Your task to perform on an android device: find which apps use the phone's location Image 0: 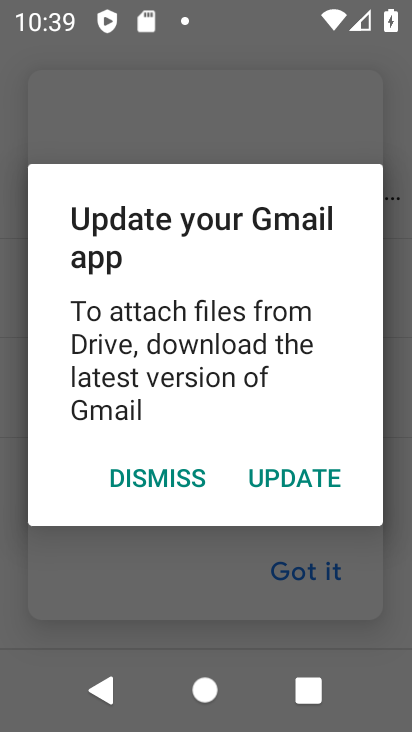
Step 0: press home button
Your task to perform on an android device: find which apps use the phone's location Image 1: 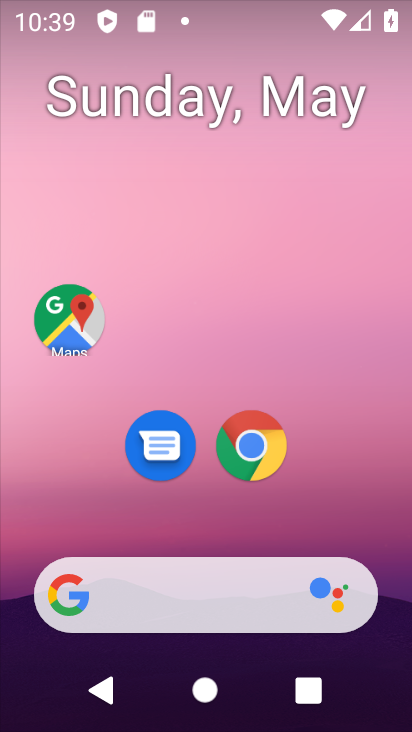
Step 1: drag from (160, 518) to (188, 216)
Your task to perform on an android device: find which apps use the phone's location Image 2: 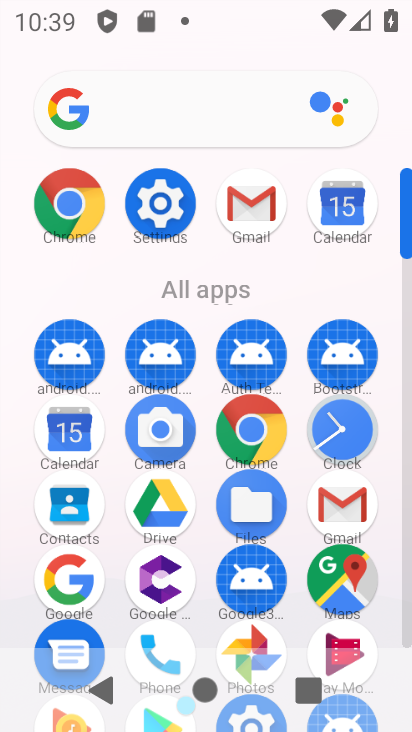
Step 2: drag from (311, 546) to (335, 305)
Your task to perform on an android device: find which apps use the phone's location Image 3: 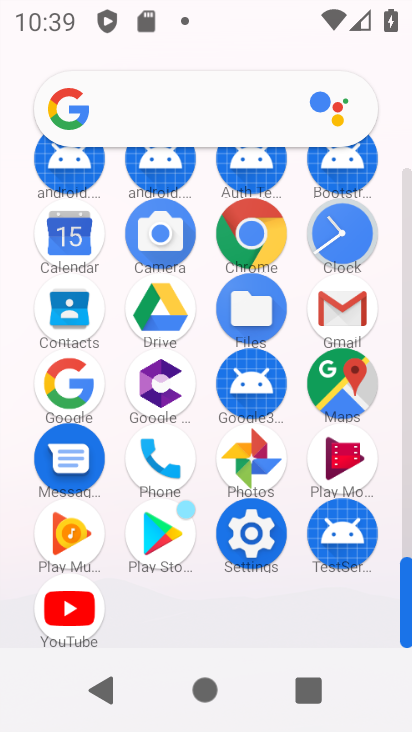
Step 3: click (246, 537)
Your task to perform on an android device: find which apps use the phone's location Image 4: 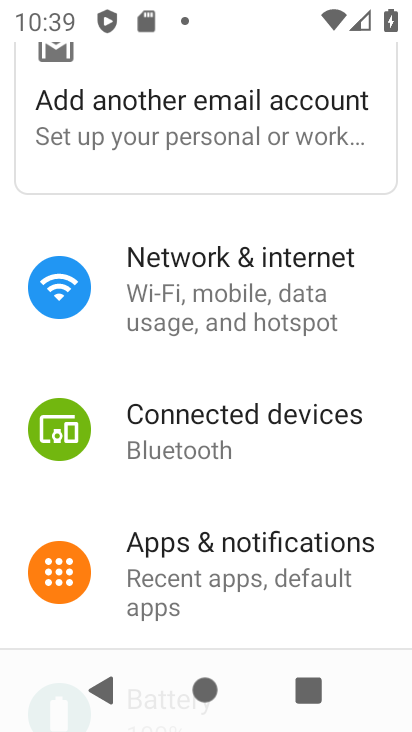
Step 4: drag from (198, 605) to (255, 309)
Your task to perform on an android device: find which apps use the phone's location Image 5: 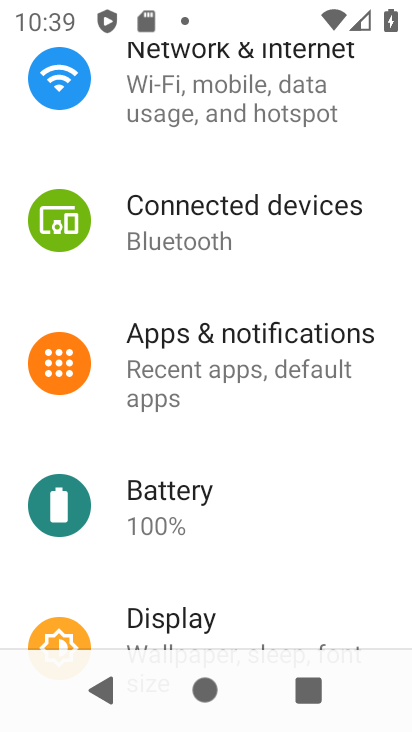
Step 5: drag from (271, 562) to (294, 362)
Your task to perform on an android device: find which apps use the phone's location Image 6: 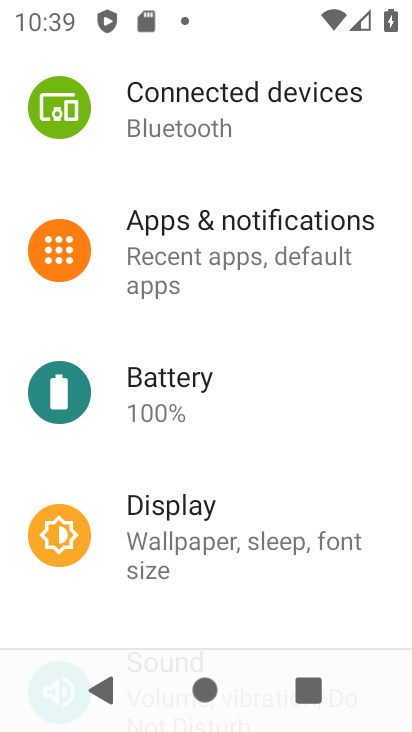
Step 6: drag from (249, 586) to (288, 302)
Your task to perform on an android device: find which apps use the phone's location Image 7: 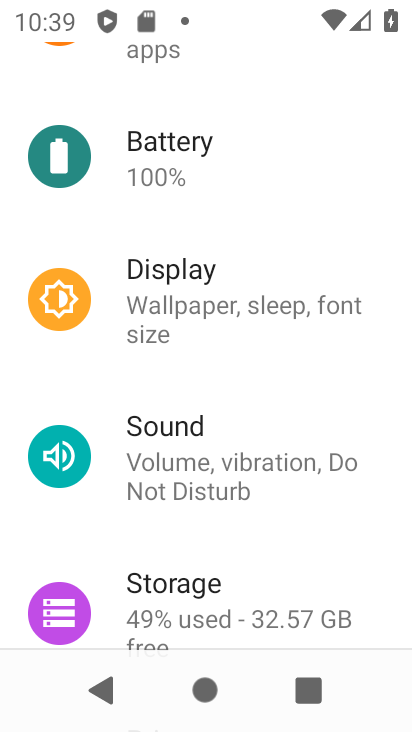
Step 7: drag from (245, 576) to (288, 318)
Your task to perform on an android device: find which apps use the phone's location Image 8: 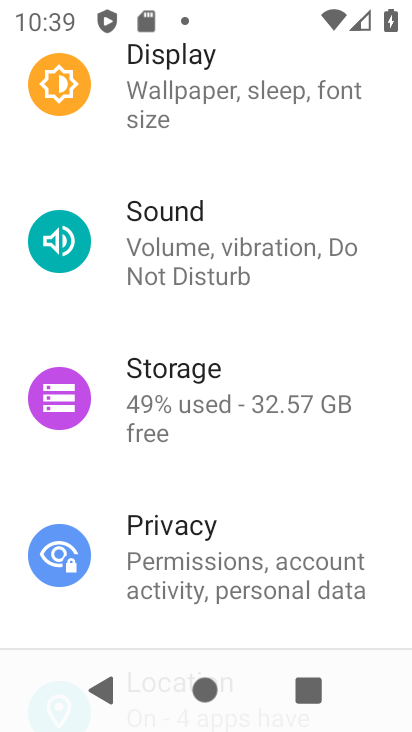
Step 8: drag from (262, 545) to (315, 272)
Your task to perform on an android device: find which apps use the phone's location Image 9: 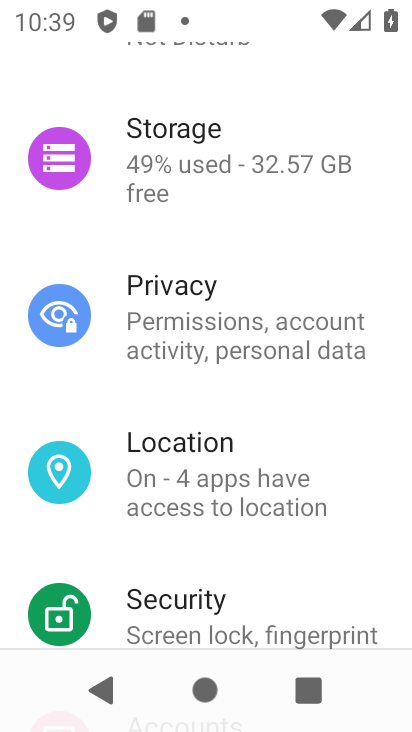
Step 9: click (222, 486)
Your task to perform on an android device: find which apps use the phone's location Image 10: 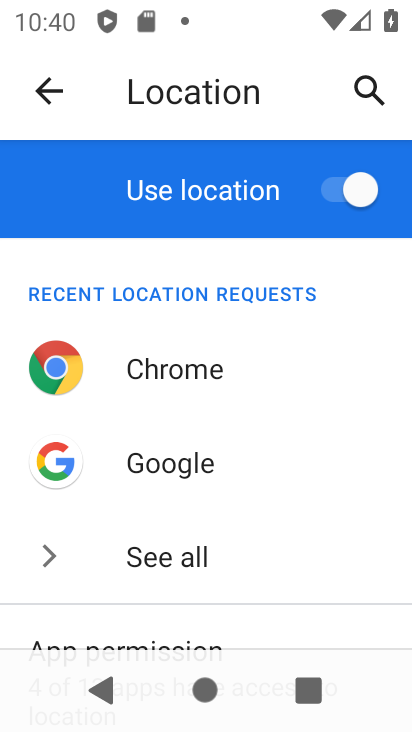
Step 10: drag from (254, 593) to (294, 225)
Your task to perform on an android device: find which apps use the phone's location Image 11: 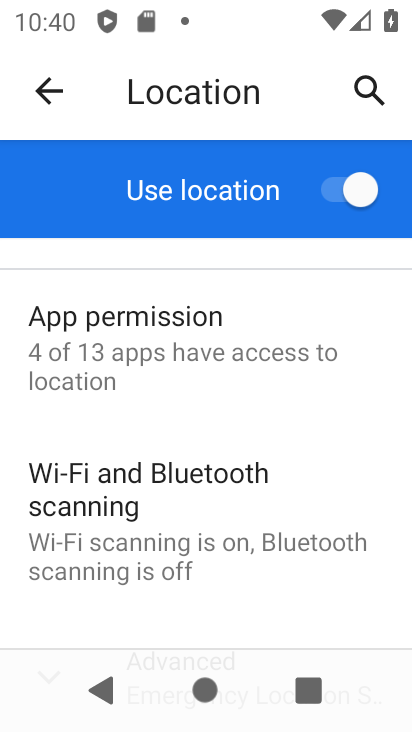
Step 11: drag from (227, 597) to (272, 225)
Your task to perform on an android device: find which apps use the phone's location Image 12: 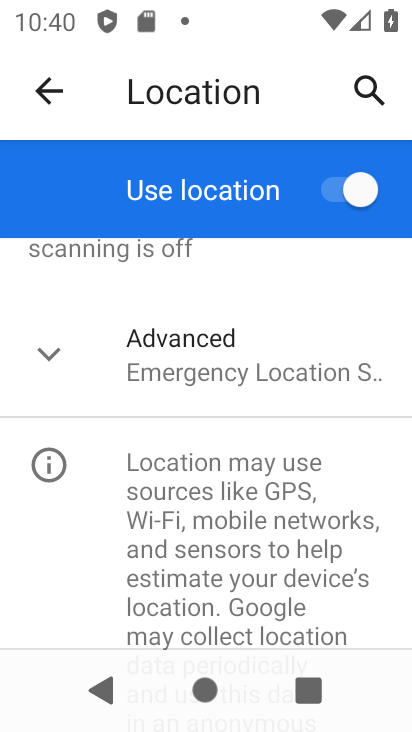
Step 12: drag from (134, 285) to (121, 583)
Your task to perform on an android device: find which apps use the phone's location Image 13: 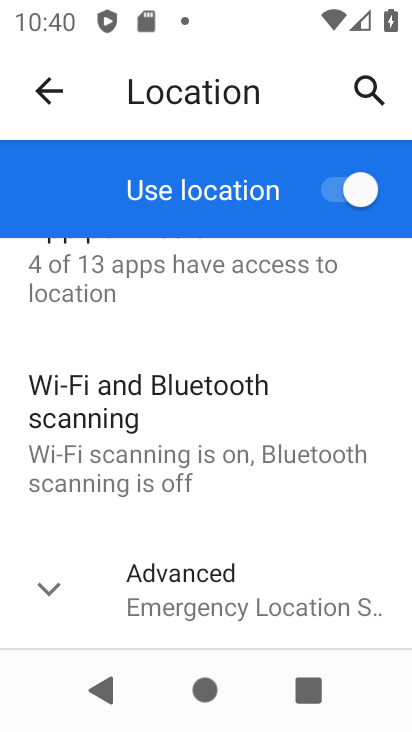
Step 13: drag from (182, 286) to (170, 603)
Your task to perform on an android device: find which apps use the phone's location Image 14: 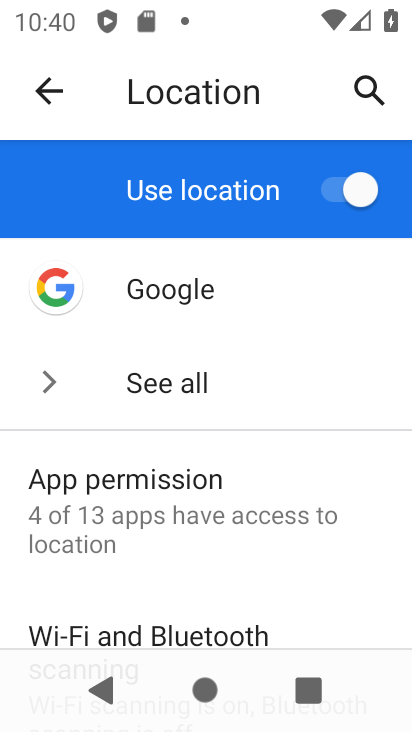
Step 14: drag from (244, 272) to (208, 530)
Your task to perform on an android device: find which apps use the phone's location Image 15: 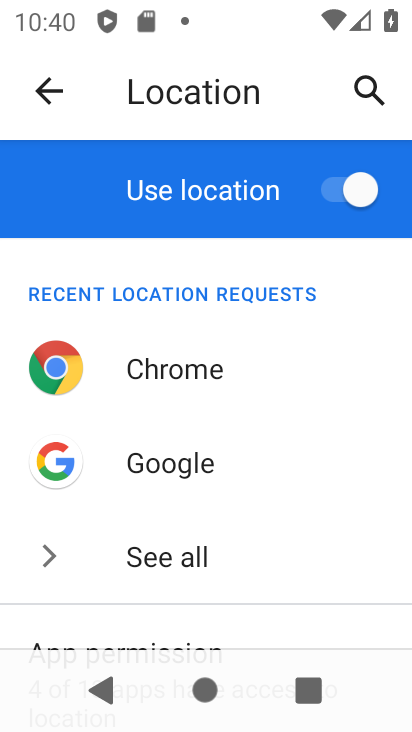
Step 15: drag from (203, 283) to (187, 421)
Your task to perform on an android device: find which apps use the phone's location Image 16: 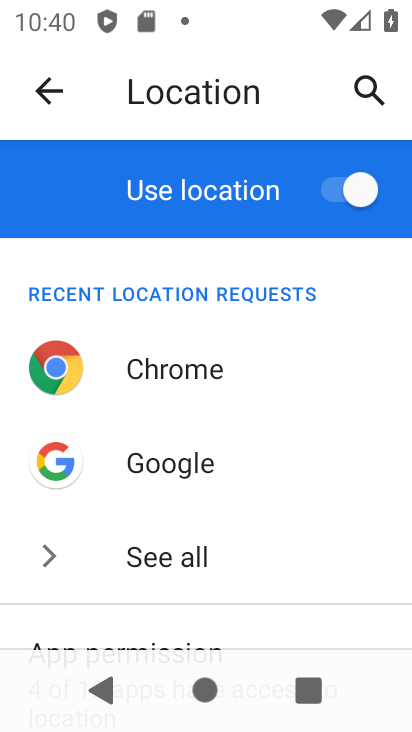
Step 16: click (169, 378)
Your task to perform on an android device: find which apps use the phone's location Image 17: 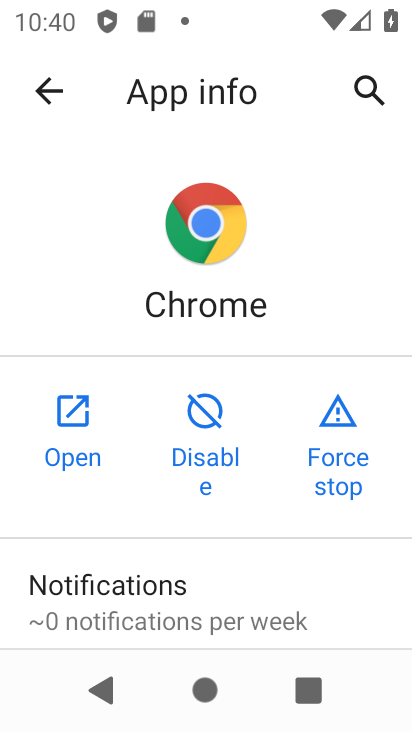
Step 17: task complete